Your task to perform on an android device: Open the map Image 0: 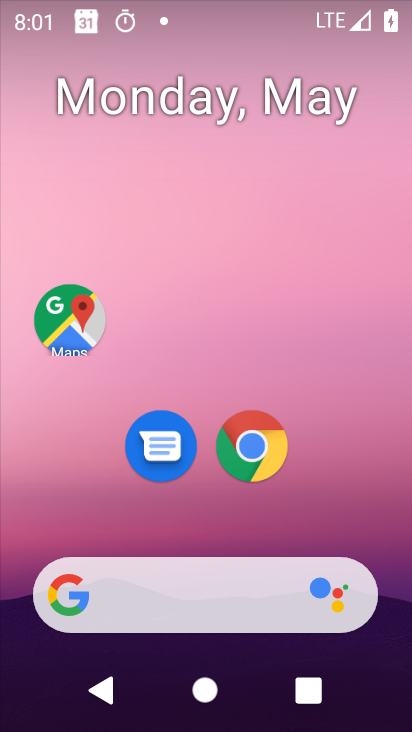
Step 0: click (66, 317)
Your task to perform on an android device: Open the map Image 1: 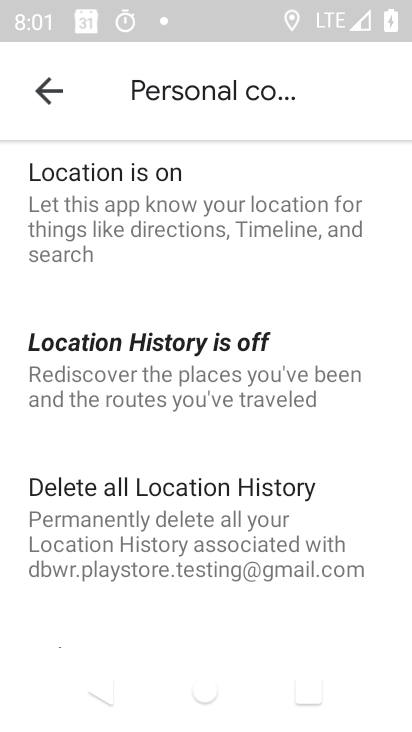
Step 1: click (45, 102)
Your task to perform on an android device: Open the map Image 2: 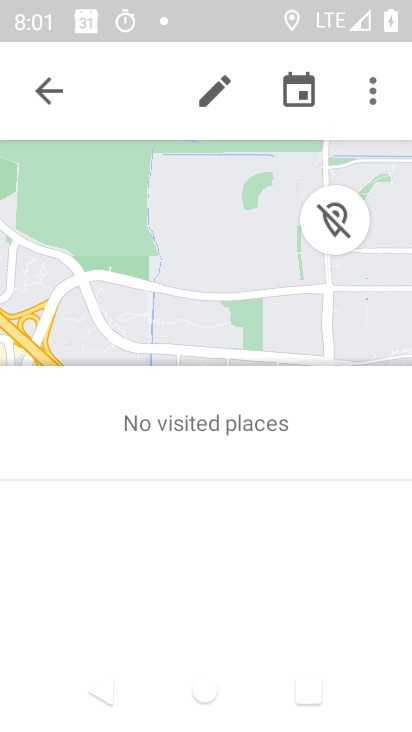
Step 2: click (45, 102)
Your task to perform on an android device: Open the map Image 3: 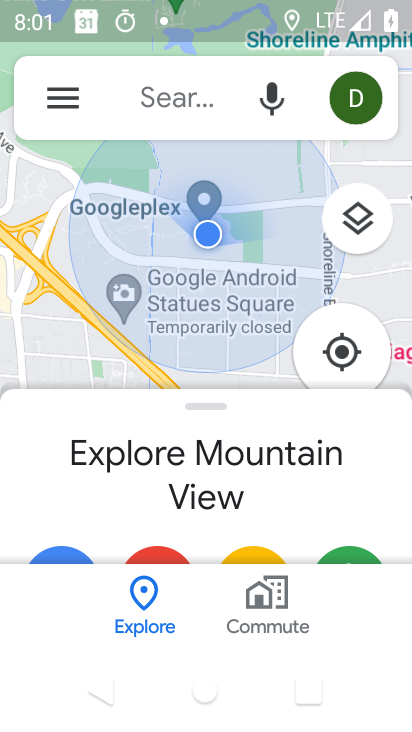
Step 3: task complete